Your task to perform on an android device: Go to Yahoo.com Image 0: 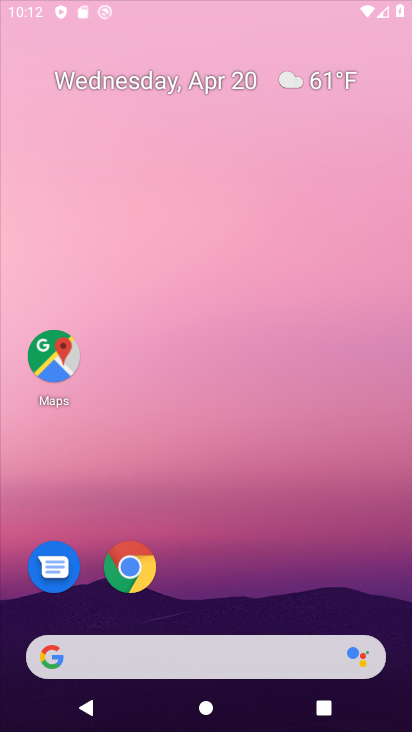
Step 0: click (316, 94)
Your task to perform on an android device: Go to Yahoo.com Image 1: 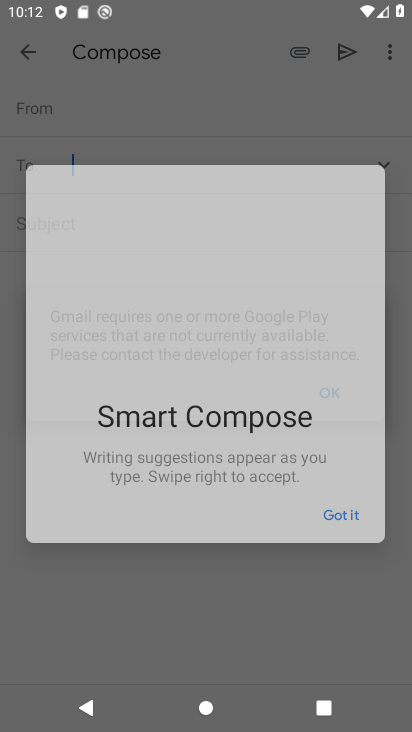
Step 1: press back button
Your task to perform on an android device: Go to Yahoo.com Image 2: 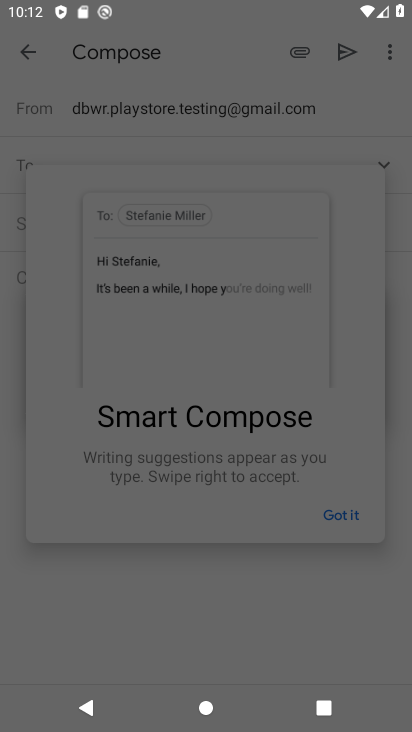
Step 2: press back button
Your task to perform on an android device: Go to Yahoo.com Image 3: 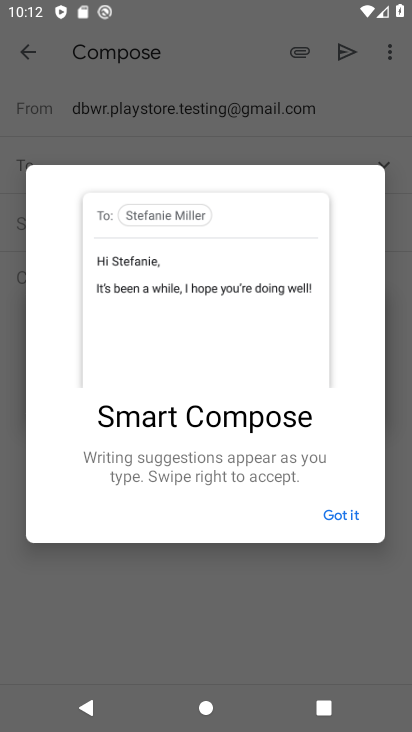
Step 3: press home button
Your task to perform on an android device: Go to Yahoo.com Image 4: 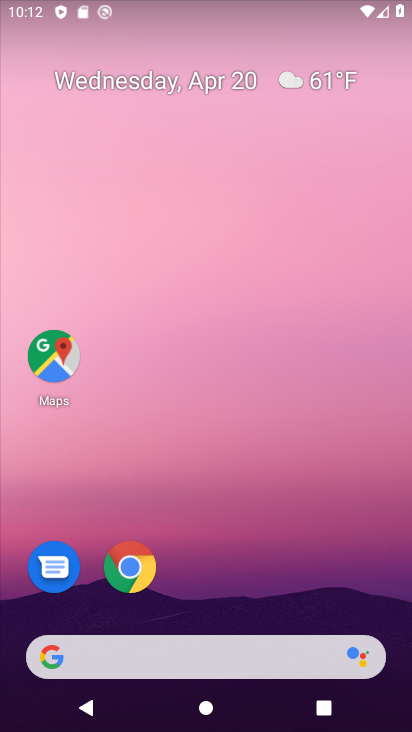
Step 4: click (141, 568)
Your task to perform on an android device: Go to Yahoo.com Image 5: 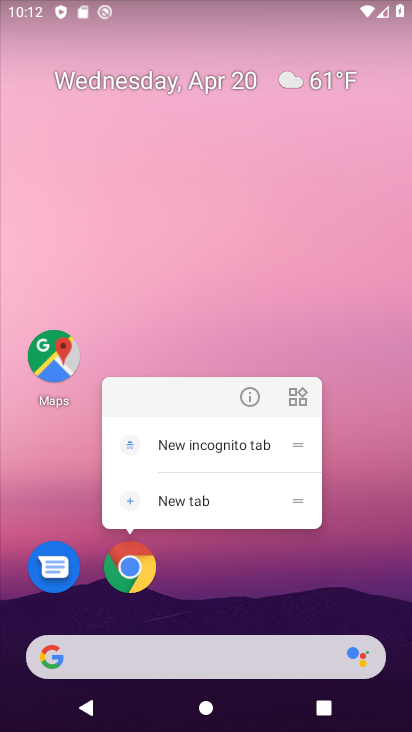
Step 5: click (130, 569)
Your task to perform on an android device: Go to Yahoo.com Image 6: 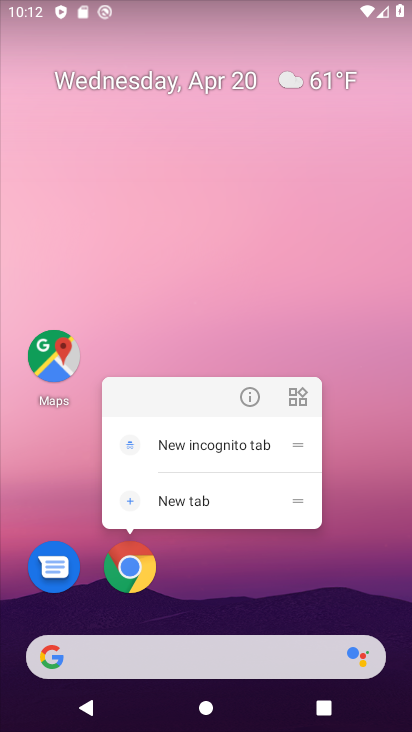
Step 6: click (128, 570)
Your task to perform on an android device: Go to Yahoo.com Image 7: 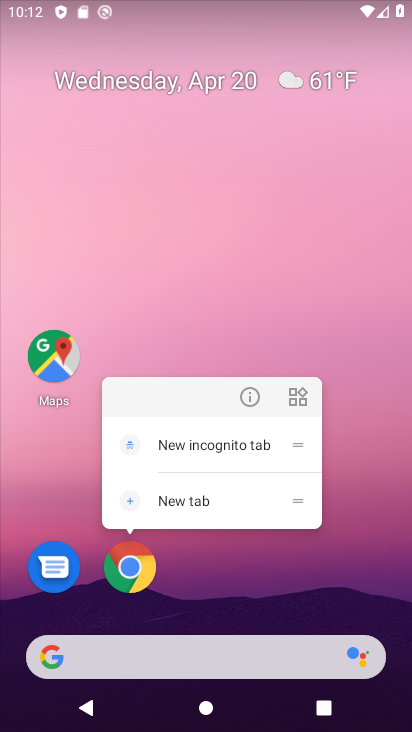
Step 7: click (127, 570)
Your task to perform on an android device: Go to Yahoo.com Image 8: 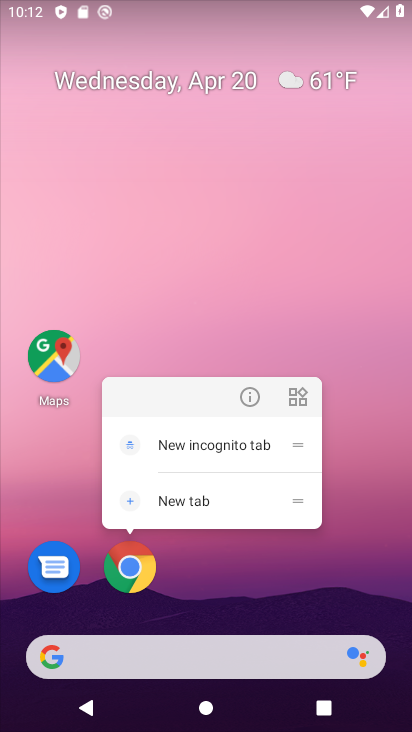
Step 8: click (131, 569)
Your task to perform on an android device: Go to Yahoo.com Image 9: 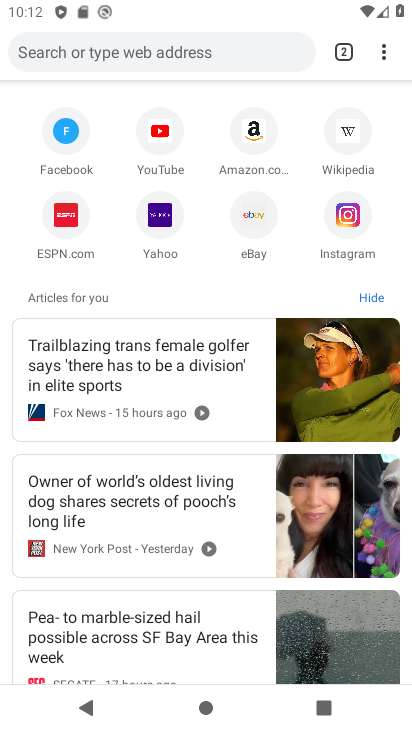
Step 9: click (171, 46)
Your task to perform on an android device: Go to Yahoo.com Image 10: 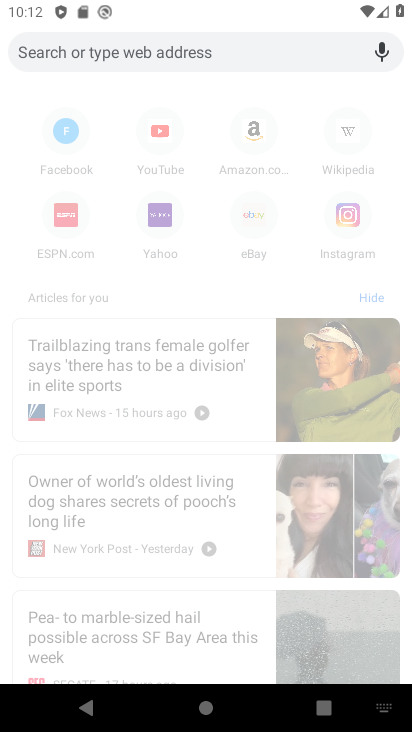
Step 10: click (160, 377)
Your task to perform on an android device: Go to Yahoo.com Image 11: 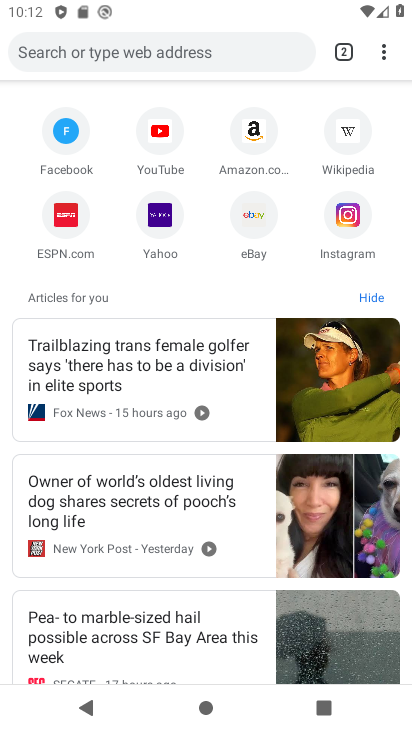
Step 11: click (164, 218)
Your task to perform on an android device: Go to Yahoo.com Image 12: 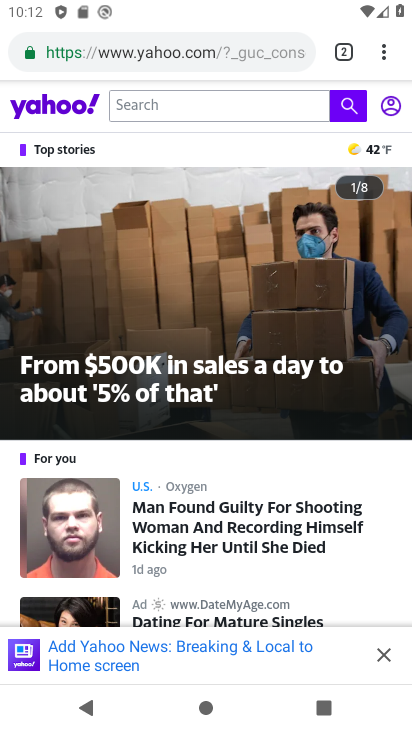
Step 12: task complete